Your task to perform on an android device: Go to CNN.com Image 0: 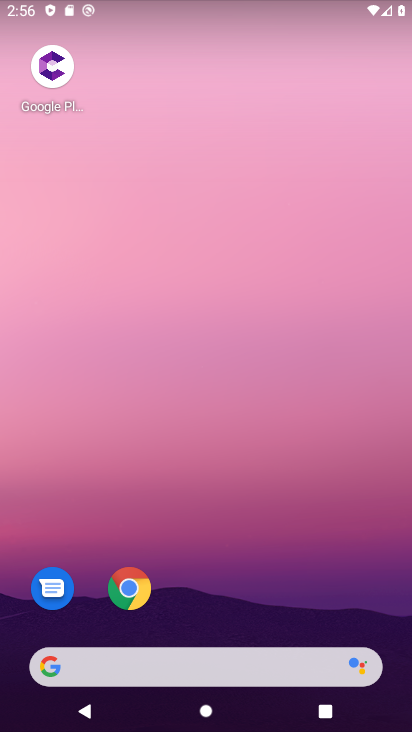
Step 0: drag from (323, 579) to (262, 73)
Your task to perform on an android device: Go to CNN.com Image 1: 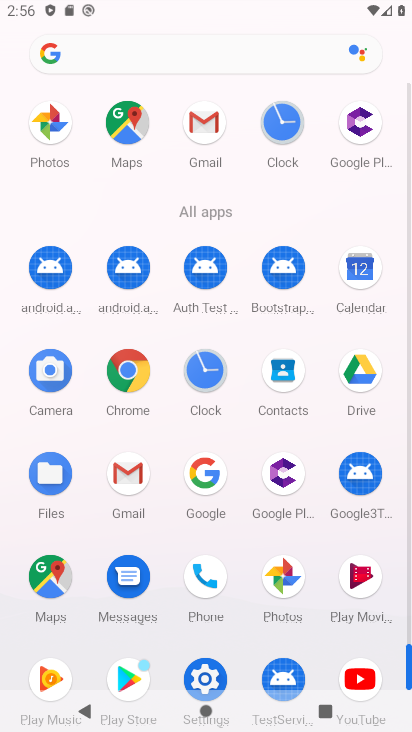
Step 1: click (129, 368)
Your task to perform on an android device: Go to CNN.com Image 2: 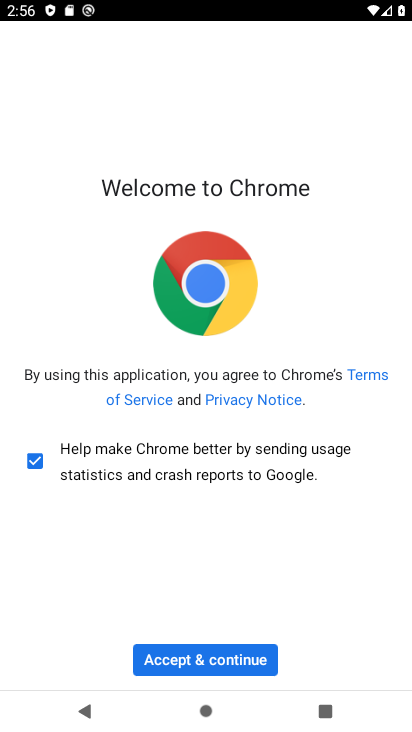
Step 2: click (200, 660)
Your task to perform on an android device: Go to CNN.com Image 3: 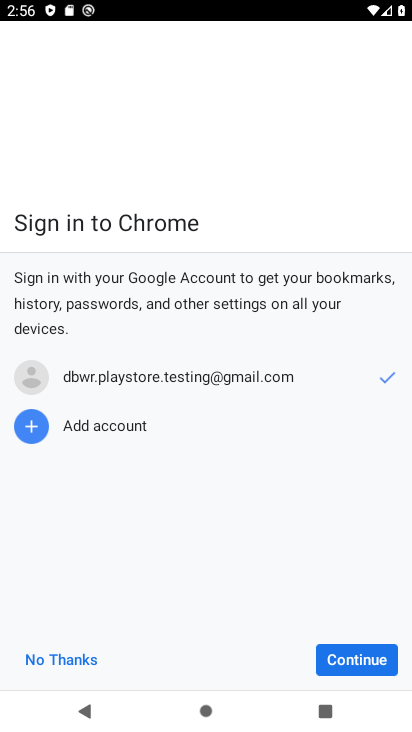
Step 3: click (349, 657)
Your task to perform on an android device: Go to CNN.com Image 4: 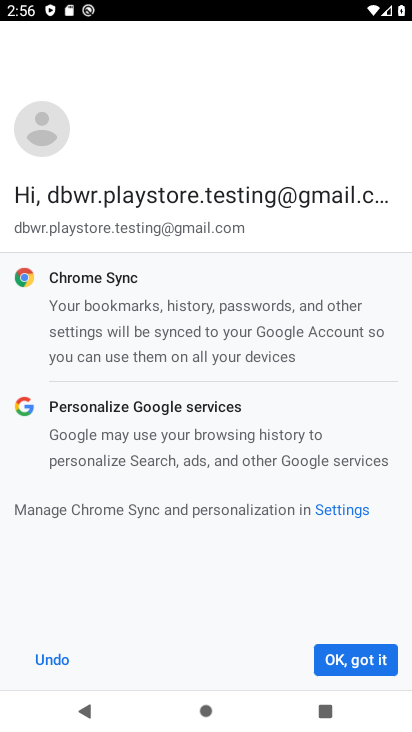
Step 4: click (350, 657)
Your task to perform on an android device: Go to CNN.com Image 5: 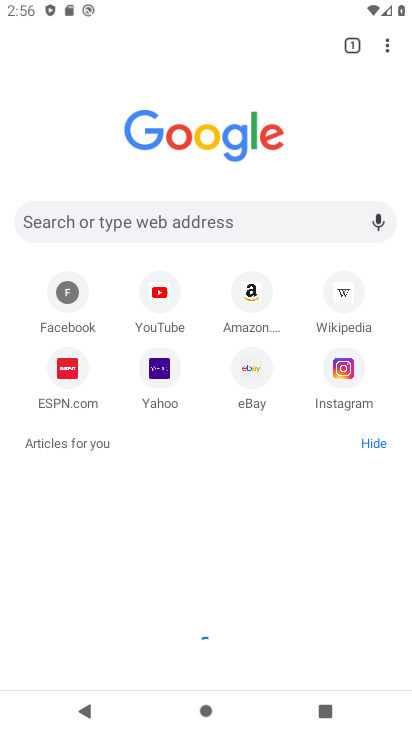
Step 5: click (240, 212)
Your task to perform on an android device: Go to CNN.com Image 6: 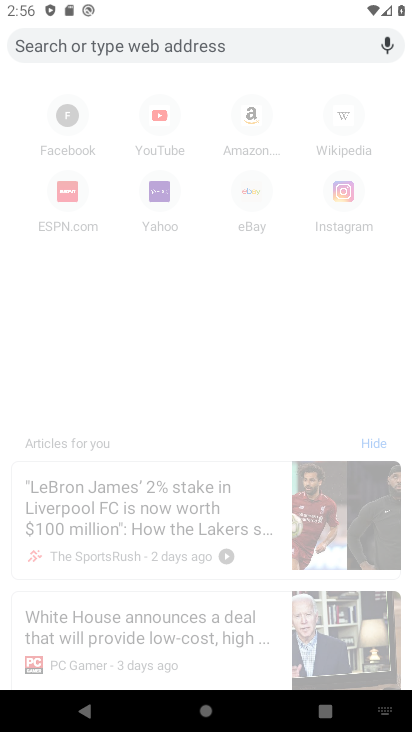
Step 6: type "CNN.com"
Your task to perform on an android device: Go to CNN.com Image 7: 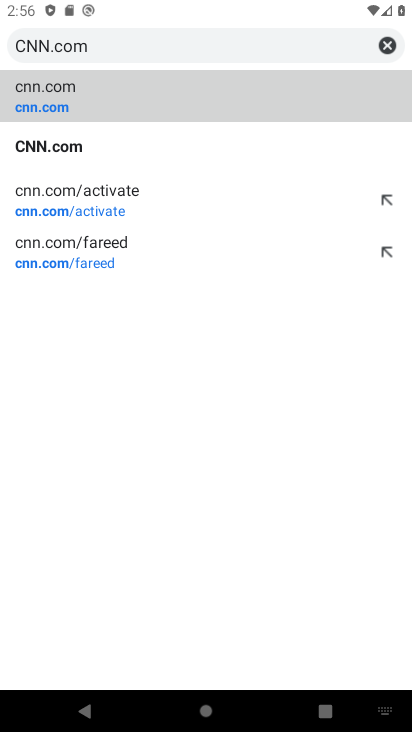
Step 7: click (89, 98)
Your task to perform on an android device: Go to CNN.com Image 8: 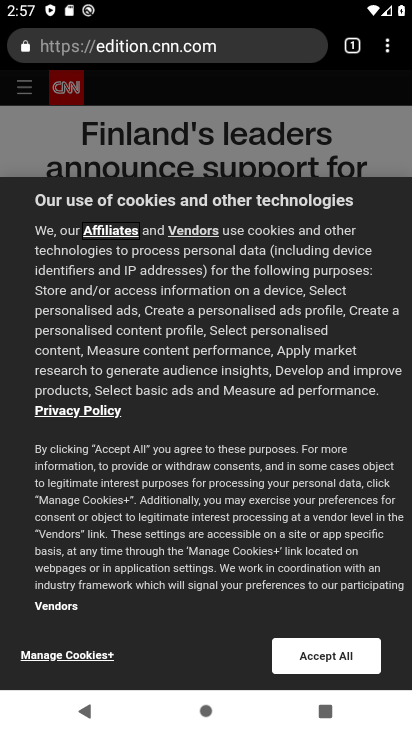
Step 8: click (325, 653)
Your task to perform on an android device: Go to CNN.com Image 9: 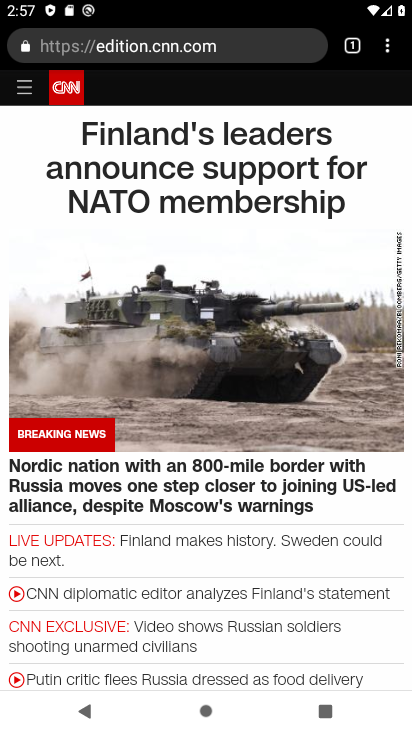
Step 9: task complete